Your task to perform on an android device: Open my contact list Image 0: 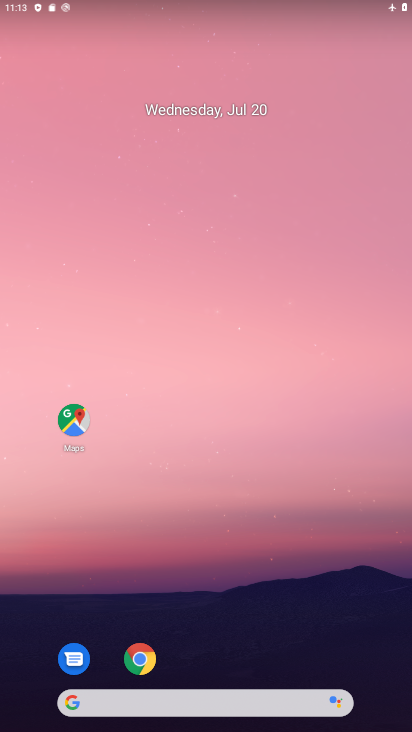
Step 0: drag from (242, 620) to (249, 94)
Your task to perform on an android device: Open my contact list Image 1: 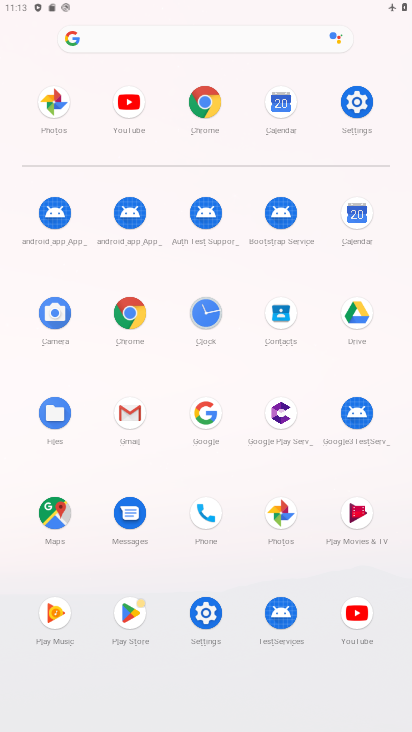
Step 1: click (272, 328)
Your task to perform on an android device: Open my contact list Image 2: 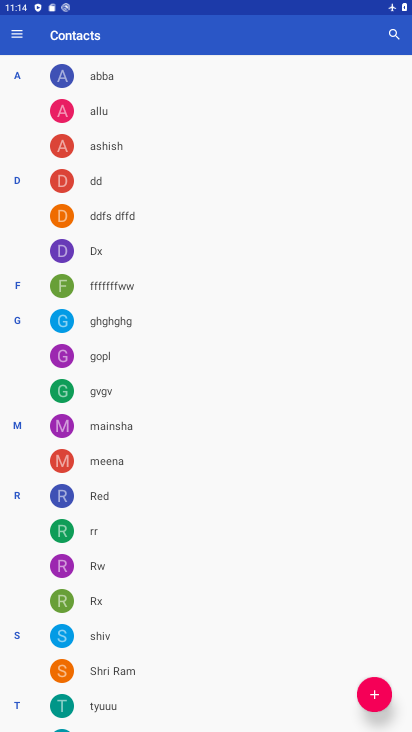
Step 2: task complete